Your task to perform on an android device: see sites visited before in the chrome app Image 0: 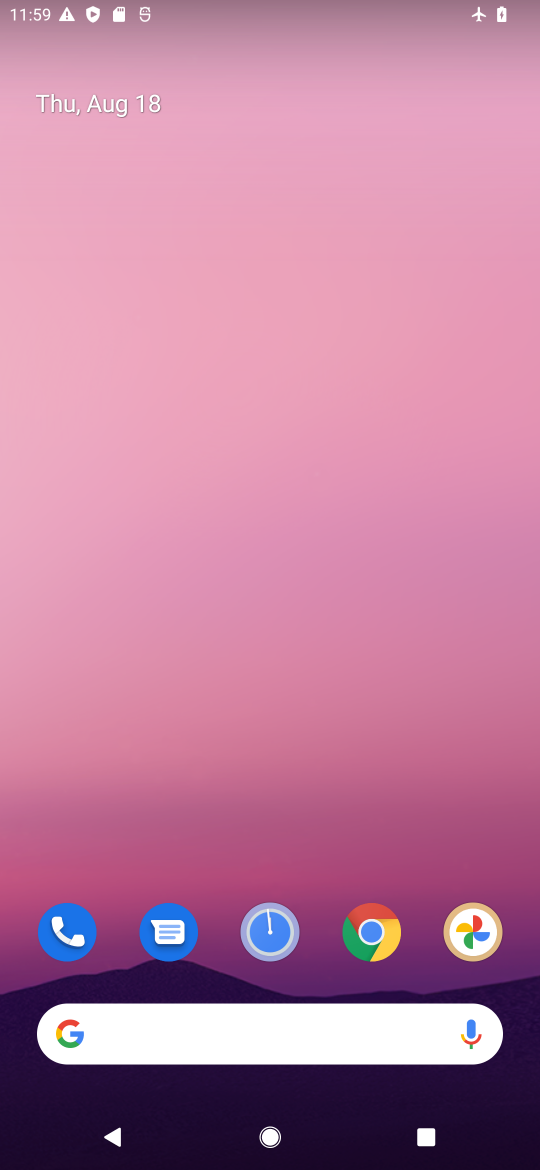
Step 0: click (372, 934)
Your task to perform on an android device: see sites visited before in the chrome app Image 1: 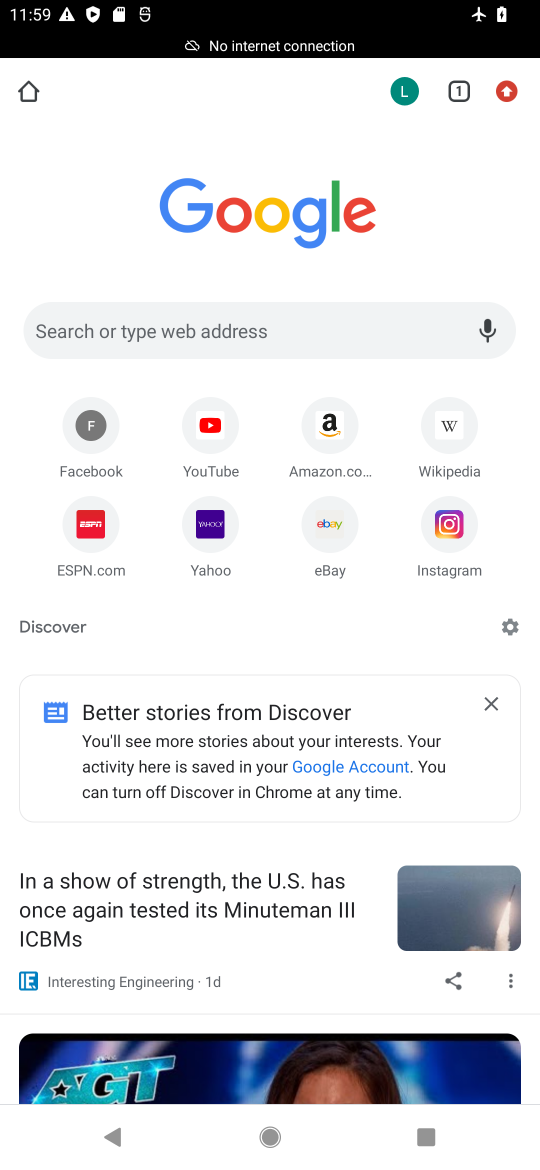
Step 1: click (503, 90)
Your task to perform on an android device: see sites visited before in the chrome app Image 2: 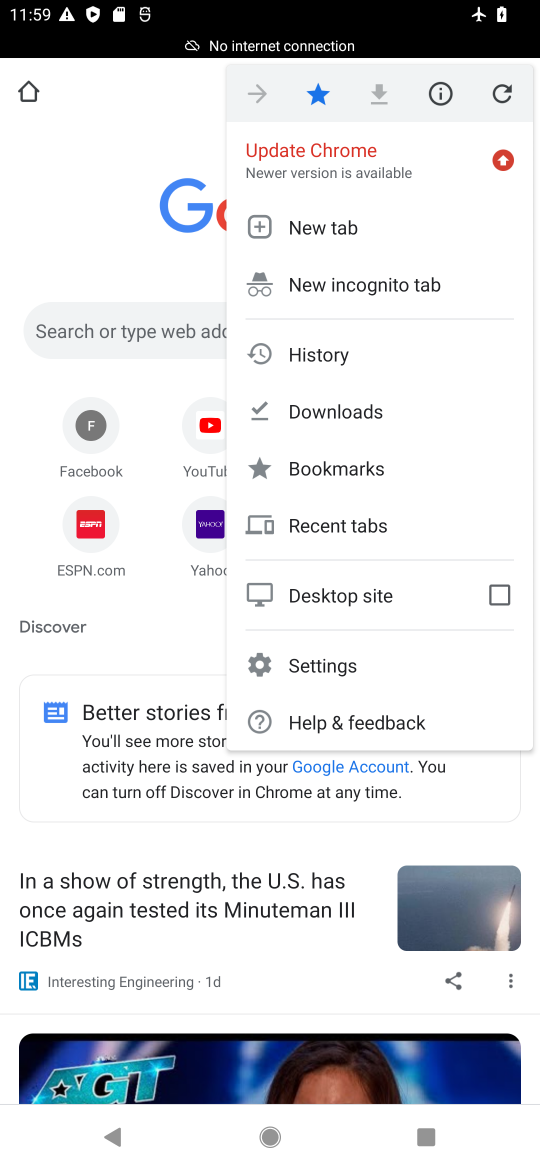
Step 2: click (326, 349)
Your task to perform on an android device: see sites visited before in the chrome app Image 3: 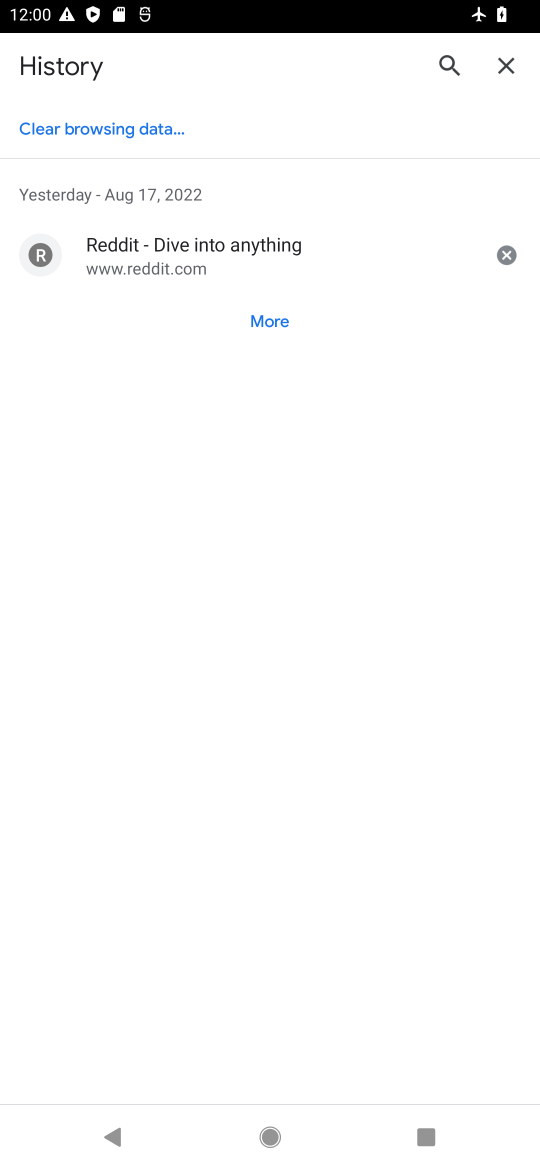
Step 3: task complete